Your task to perform on an android device: Add acer nitro to the cart on target, then select checkout. Image 0: 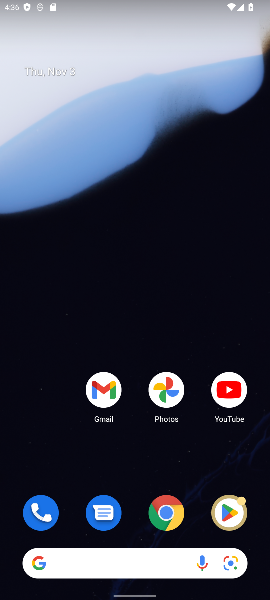
Step 0: click (168, 517)
Your task to perform on an android device: Add acer nitro to the cart on target, then select checkout. Image 1: 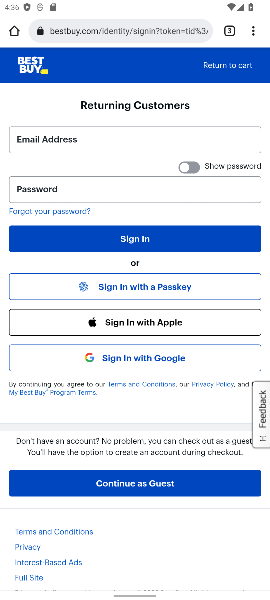
Step 1: click (231, 33)
Your task to perform on an android device: Add acer nitro to the cart on target, then select checkout. Image 2: 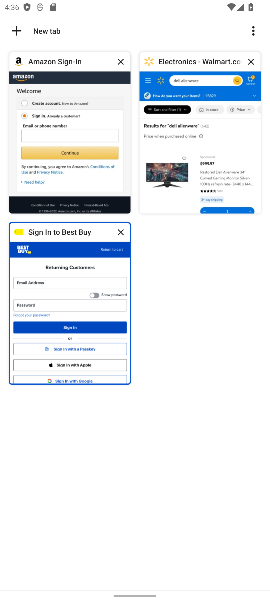
Step 2: click (13, 32)
Your task to perform on an android device: Add acer nitro to the cart on target, then select checkout. Image 3: 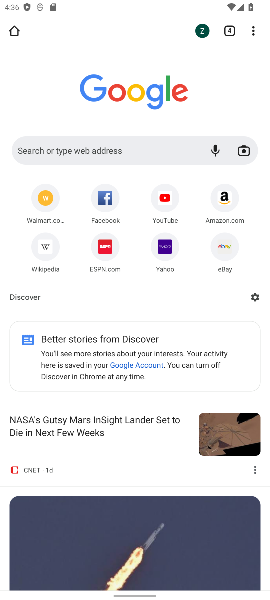
Step 3: click (53, 151)
Your task to perform on an android device: Add acer nitro to the cart on target, then select checkout. Image 4: 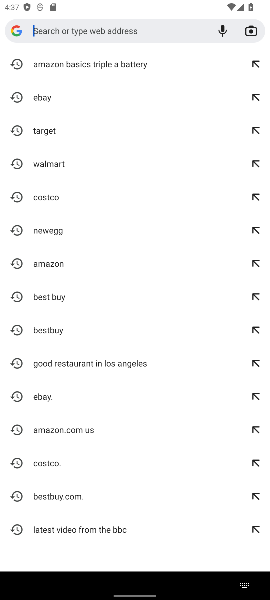
Step 4: type "target"
Your task to perform on an android device: Add acer nitro to the cart on target, then select checkout. Image 5: 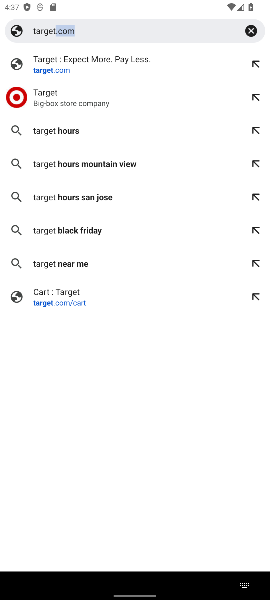
Step 5: click (59, 102)
Your task to perform on an android device: Add acer nitro to the cart on target, then select checkout. Image 6: 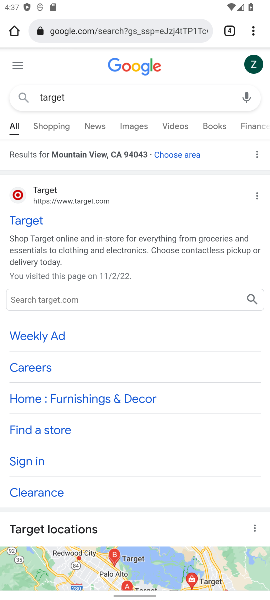
Step 6: click (25, 302)
Your task to perform on an android device: Add acer nitro to the cart on target, then select checkout. Image 7: 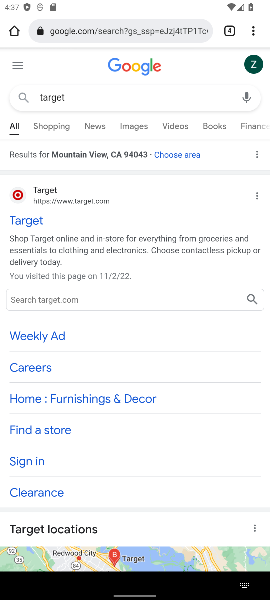
Step 7: type "acer nitro"
Your task to perform on an android device: Add acer nitro to the cart on target, then select checkout. Image 8: 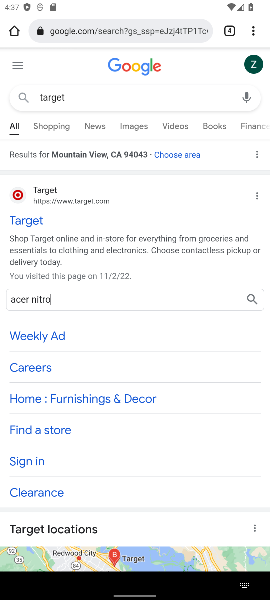
Step 8: click (250, 295)
Your task to perform on an android device: Add acer nitro to the cart on target, then select checkout. Image 9: 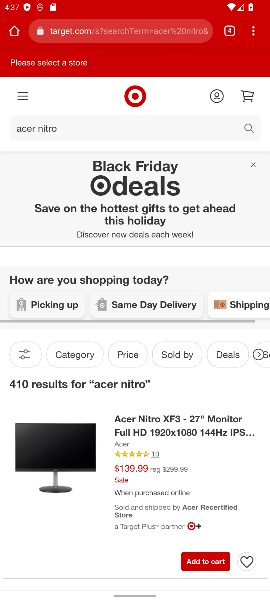
Step 9: click (194, 564)
Your task to perform on an android device: Add acer nitro to the cart on target, then select checkout. Image 10: 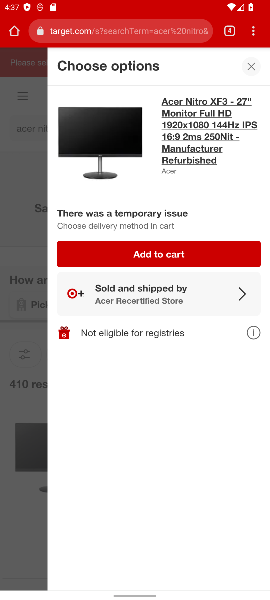
Step 10: click (170, 258)
Your task to perform on an android device: Add acer nitro to the cart on target, then select checkout. Image 11: 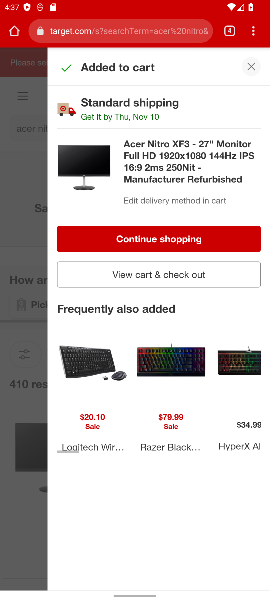
Step 11: click (168, 277)
Your task to perform on an android device: Add acer nitro to the cart on target, then select checkout. Image 12: 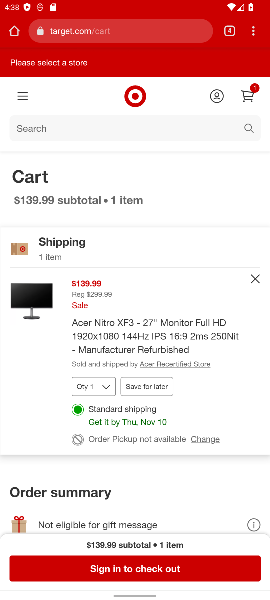
Step 12: click (138, 571)
Your task to perform on an android device: Add acer nitro to the cart on target, then select checkout. Image 13: 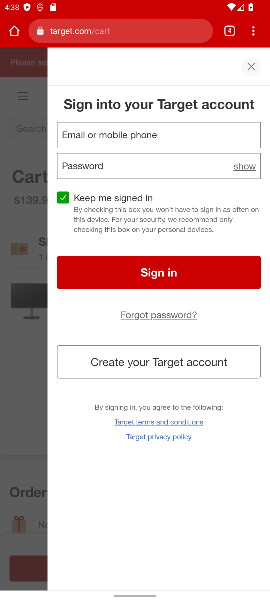
Step 13: task complete